Your task to perform on an android device: remove spam from my inbox in the gmail app Image 0: 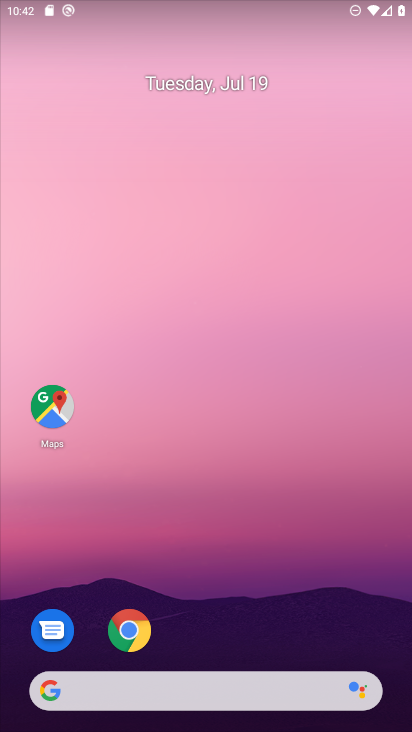
Step 0: drag from (219, 602) to (165, 146)
Your task to perform on an android device: remove spam from my inbox in the gmail app Image 1: 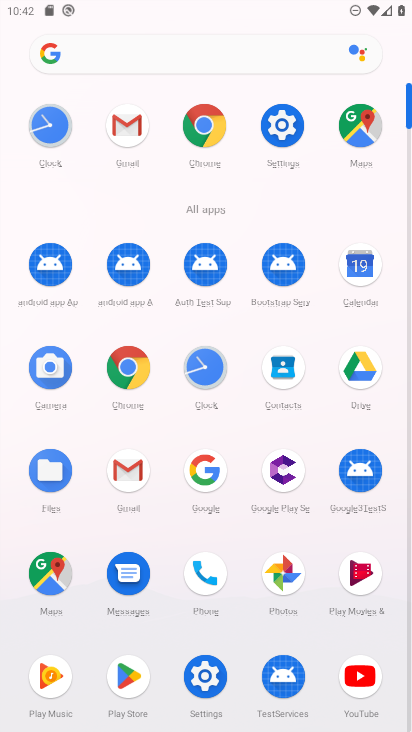
Step 1: click (138, 461)
Your task to perform on an android device: remove spam from my inbox in the gmail app Image 2: 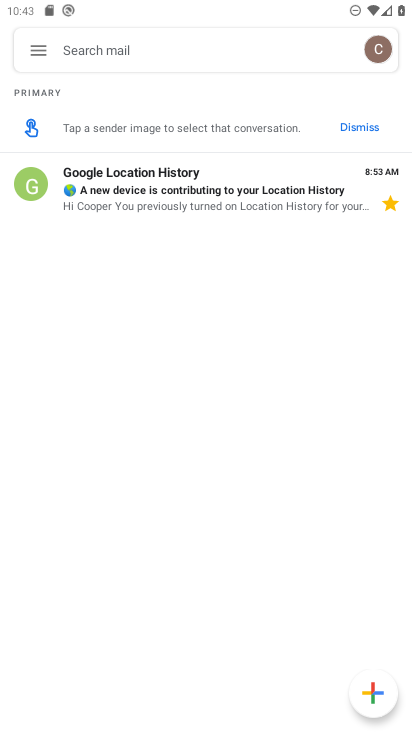
Step 2: click (30, 63)
Your task to perform on an android device: remove spam from my inbox in the gmail app Image 3: 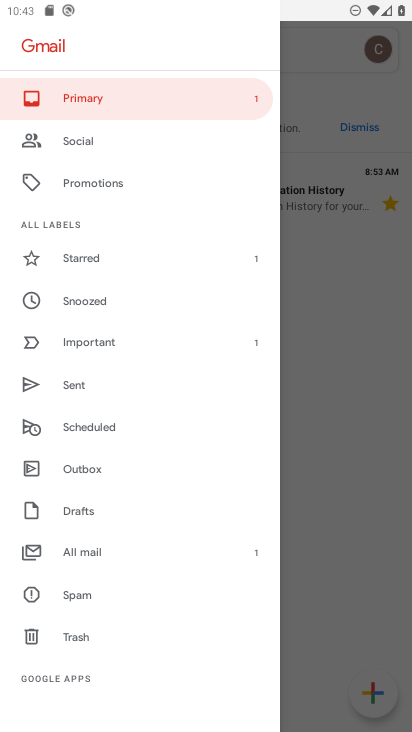
Step 3: click (118, 589)
Your task to perform on an android device: remove spam from my inbox in the gmail app Image 4: 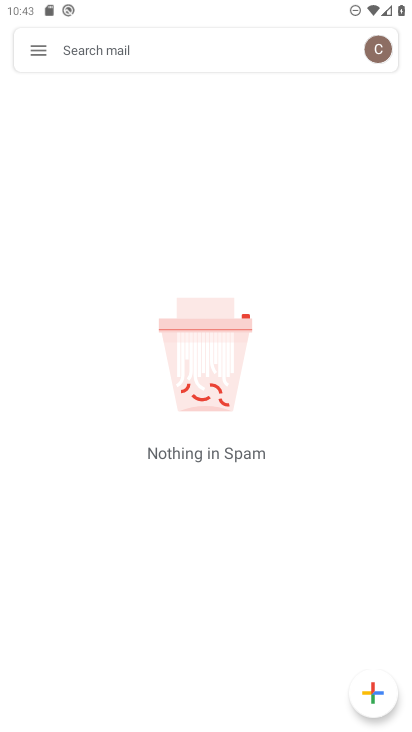
Step 4: task complete